Your task to perform on an android device: allow notifications from all sites in the chrome app Image 0: 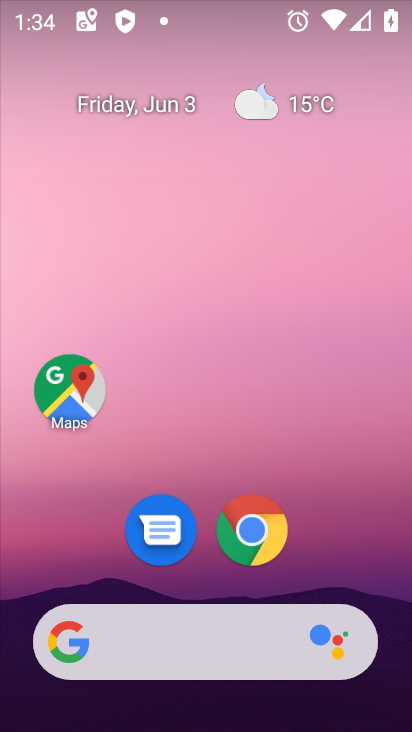
Step 0: click (250, 539)
Your task to perform on an android device: allow notifications from all sites in the chrome app Image 1: 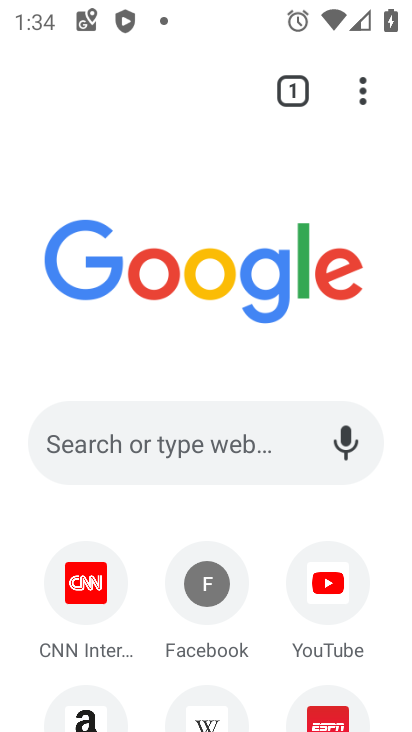
Step 1: drag from (368, 96) to (260, 539)
Your task to perform on an android device: allow notifications from all sites in the chrome app Image 2: 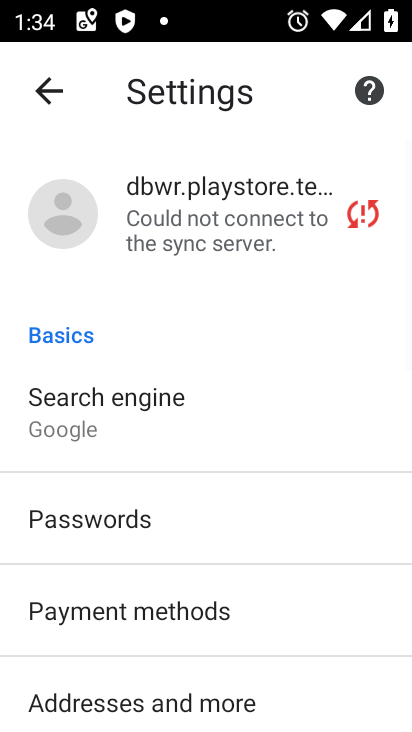
Step 2: drag from (296, 365) to (266, 31)
Your task to perform on an android device: allow notifications from all sites in the chrome app Image 3: 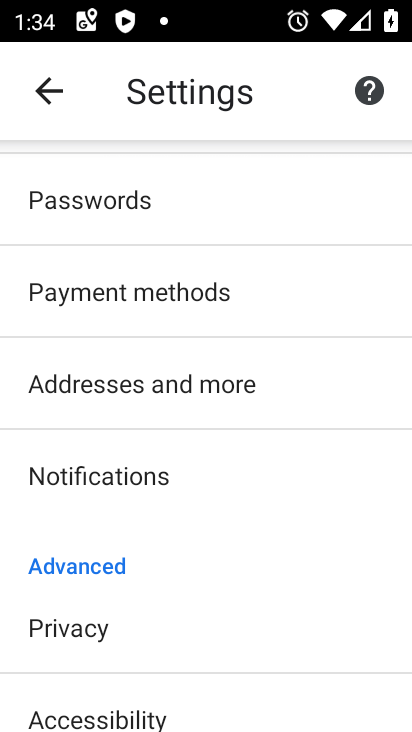
Step 3: drag from (327, 531) to (307, 155)
Your task to perform on an android device: allow notifications from all sites in the chrome app Image 4: 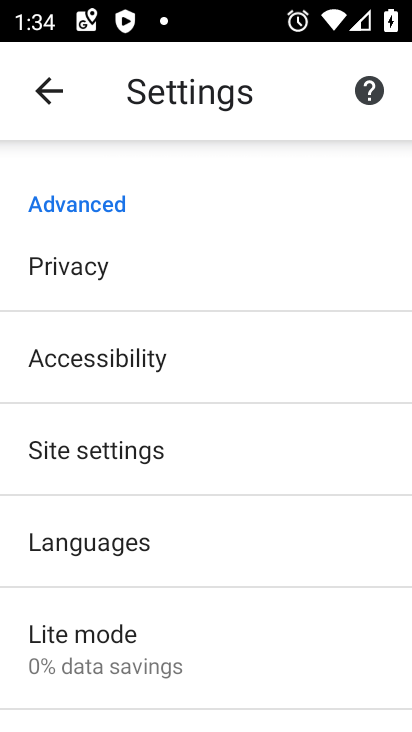
Step 4: click (208, 437)
Your task to perform on an android device: allow notifications from all sites in the chrome app Image 5: 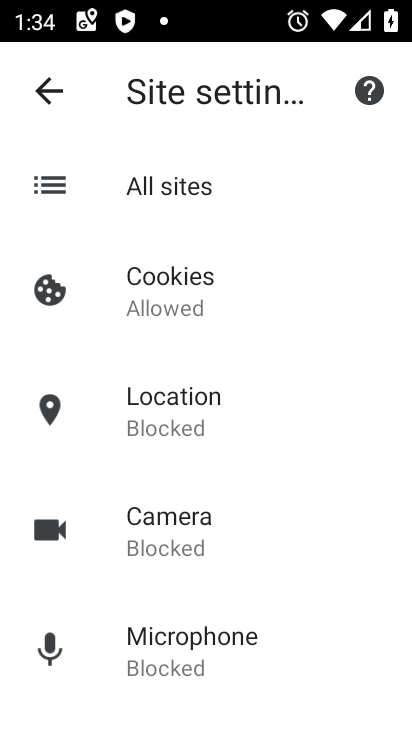
Step 5: drag from (341, 668) to (284, 127)
Your task to perform on an android device: allow notifications from all sites in the chrome app Image 6: 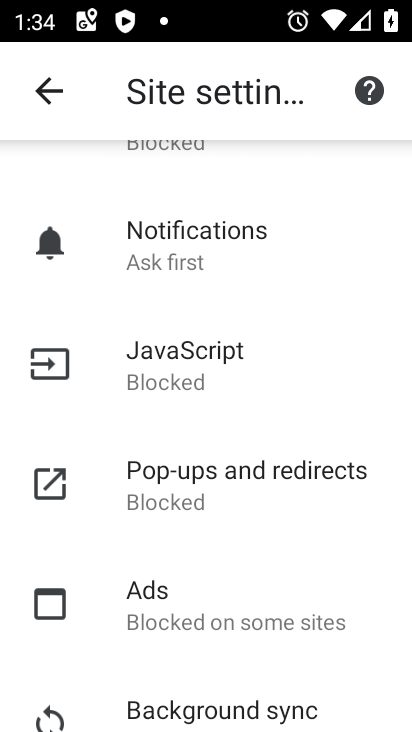
Step 6: click (177, 270)
Your task to perform on an android device: allow notifications from all sites in the chrome app Image 7: 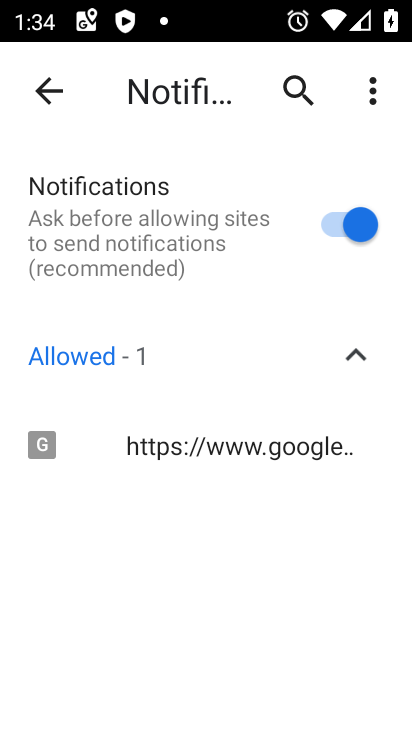
Step 7: task complete